Your task to perform on an android device: see sites visited before in the chrome app Image 0: 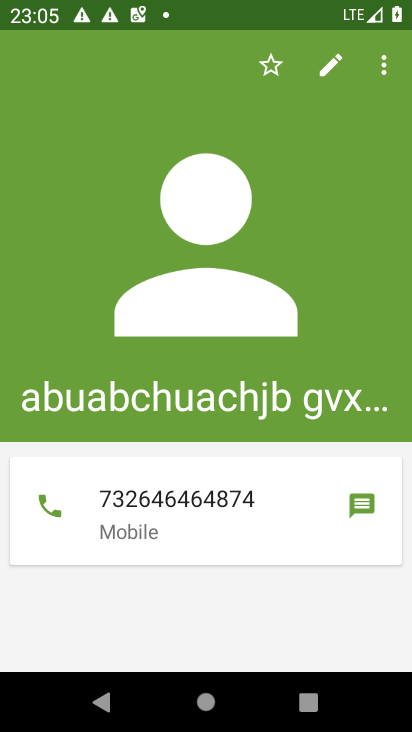
Step 0: press back button
Your task to perform on an android device: see sites visited before in the chrome app Image 1: 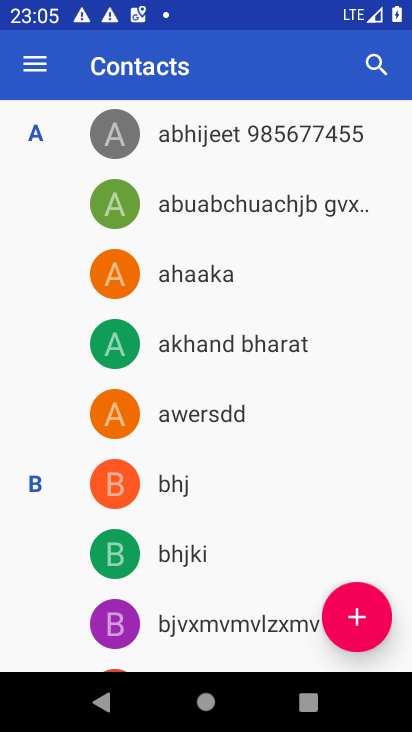
Step 1: press home button
Your task to perform on an android device: see sites visited before in the chrome app Image 2: 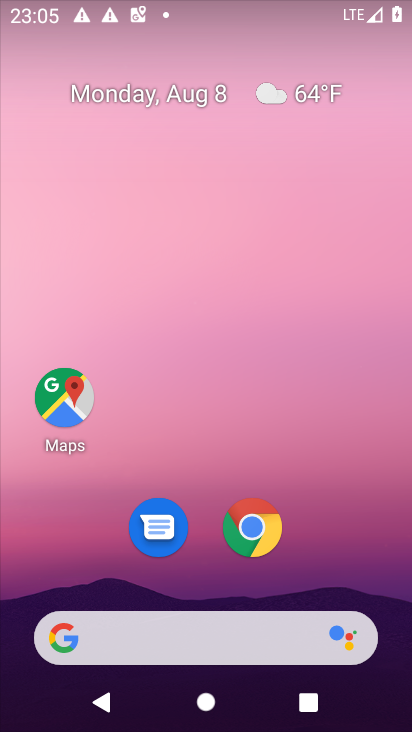
Step 2: click (221, 518)
Your task to perform on an android device: see sites visited before in the chrome app Image 3: 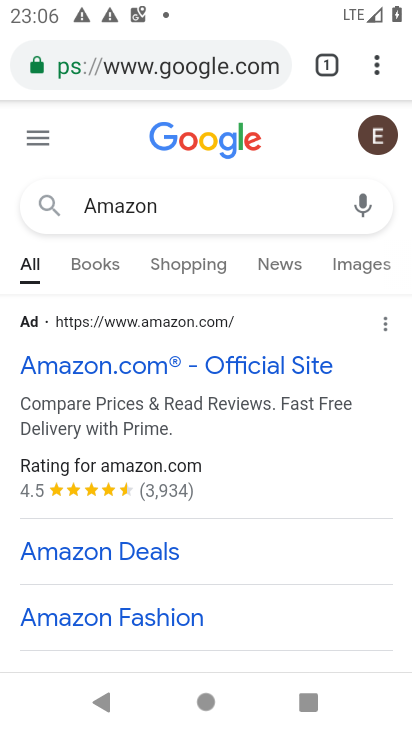
Step 3: click (375, 69)
Your task to perform on an android device: see sites visited before in the chrome app Image 4: 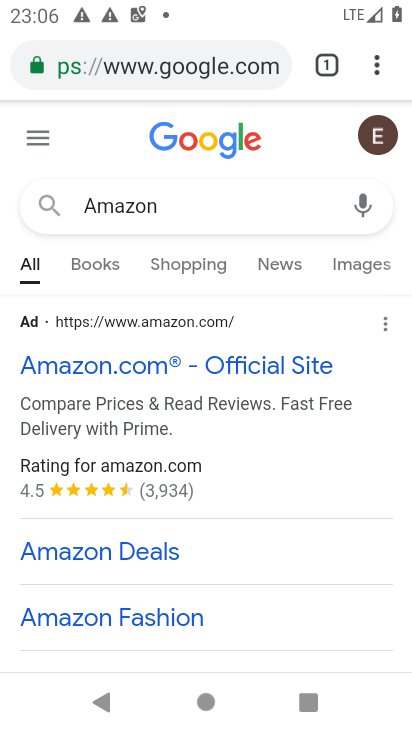
Step 4: click (376, 64)
Your task to perform on an android device: see sites visited before in the chrome app Image 5: 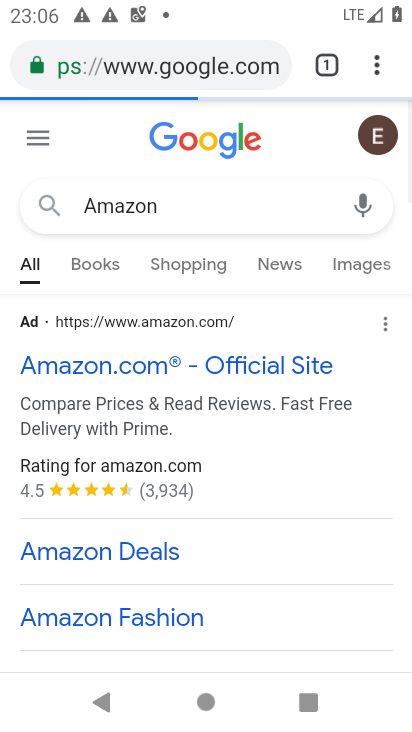
Step 5: click (376, 64)
Your task to perform on an android device: see sites visited before in the chrome app Image 6: 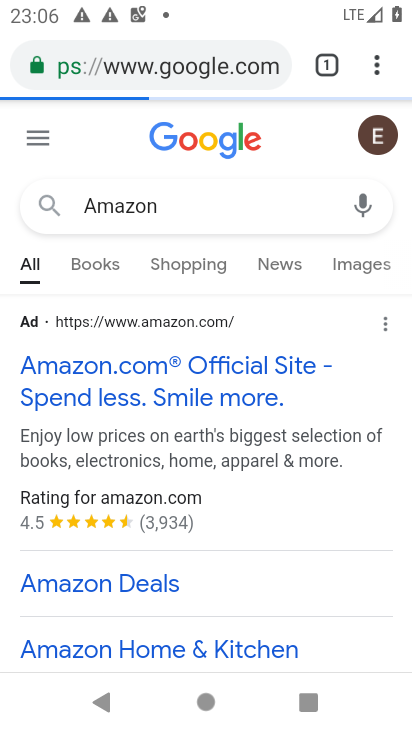
Step 6: click (376, 64)
Your task to perform on an android device: see sites visited before in the chrome app Image 7: 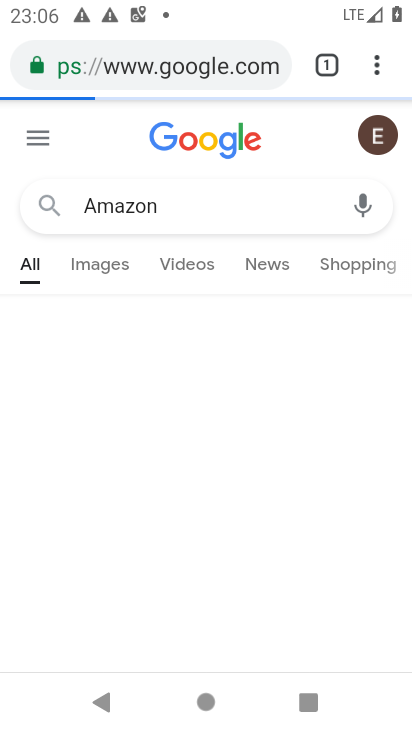
Step 7: click (376, 64)
Your task to perform on an android device: see sites visited before in the chrome app Image 8: 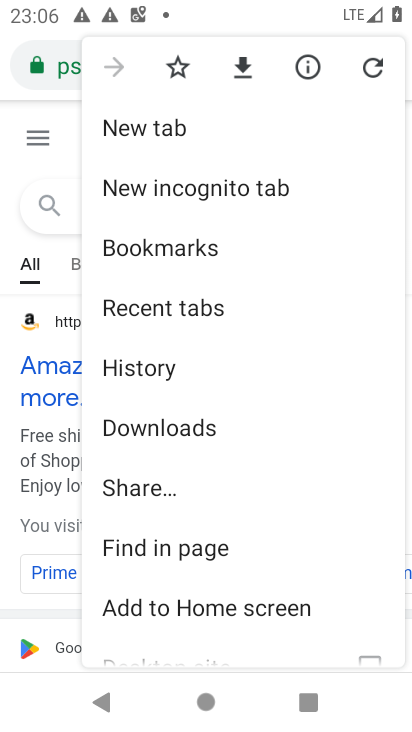
Step 8: drag from (332, 628) to (319, 237)
Your task to perform on an android device: see sites visited before in the chrome app Image 9: 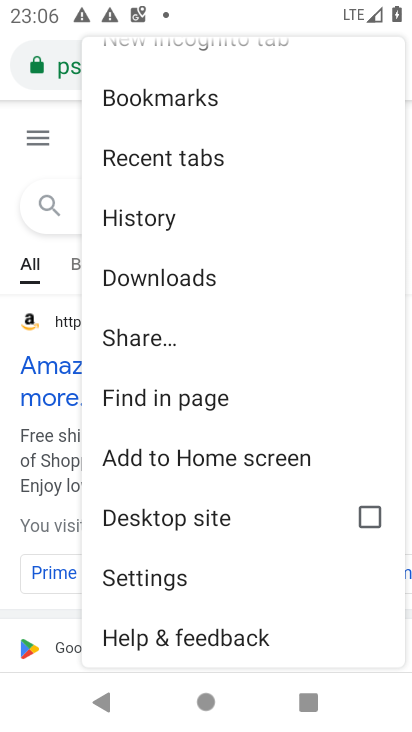
Step 9: click (127, 578)
Your task to perform on an android device: see sites visited before in the chrome app Image 10: 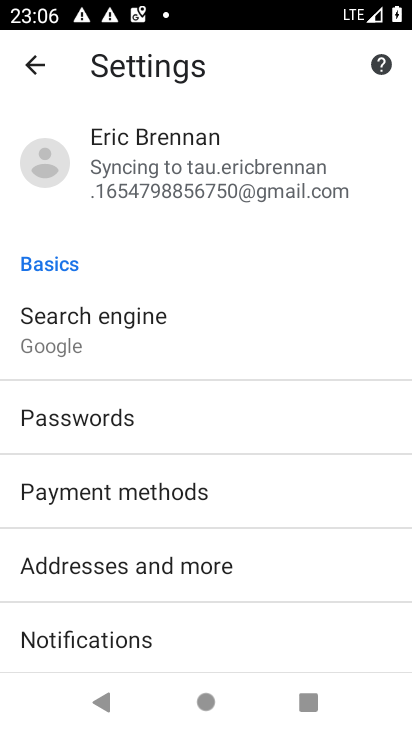
Step 10: drag from (260, 638) to (265, 239)
Your task to perform on an android device: see sites visited before in the chrome app Image 11: 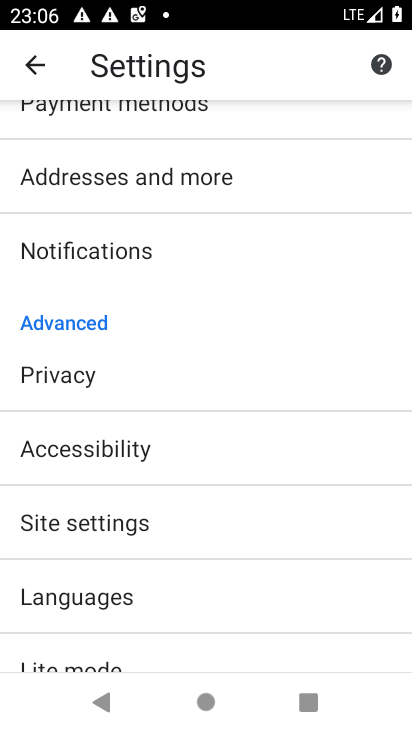
Step 11: click (95, 522)
Your task to perform on an android device: see sites visited before in the chrome app Image 12: 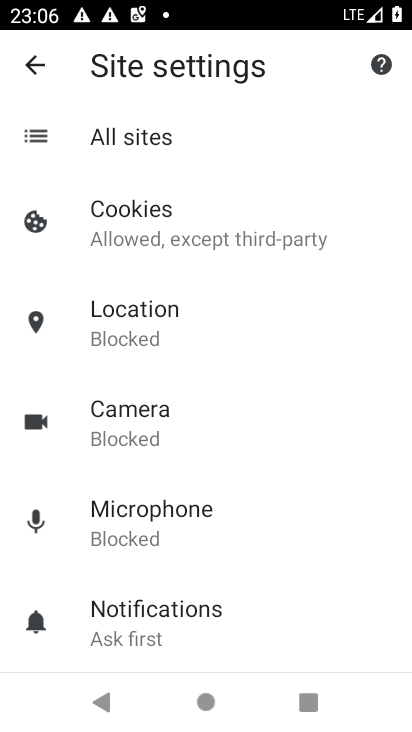
Step 12: drag from (300, 621) to (331, 276)
Your task to perform on an android device: see sites visited before in the chrome app Image 13: 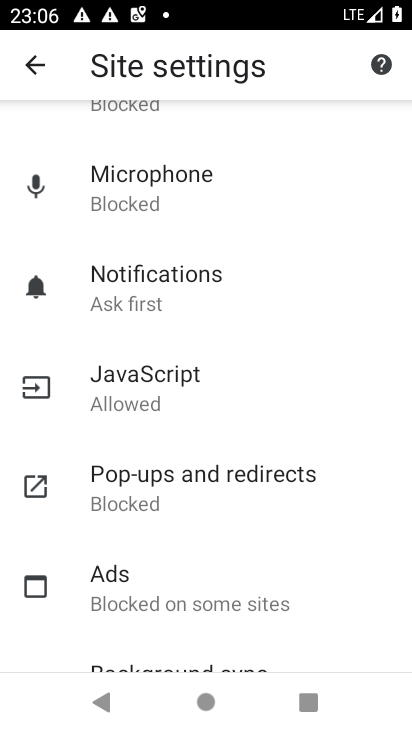
Step 13: drag from (320, 651) to (320, 307)
Your task to perform on an android device: see sites visited before in the chrome app Image 14: 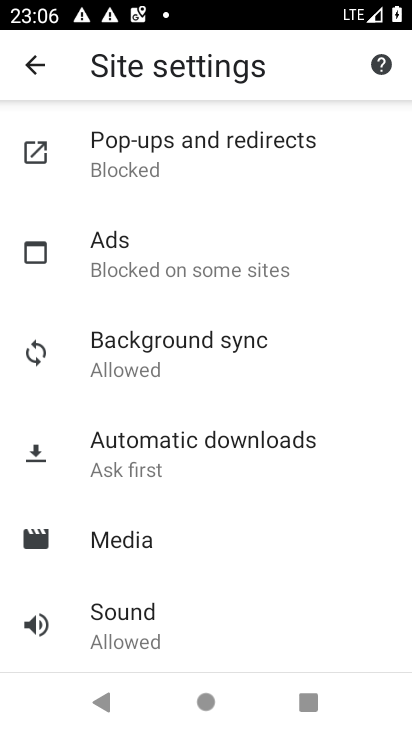
Step 14: drag from (328, 613) to (357, 290)
Your task to perform on an android device: see sites visited before in the chrome app Image 15: 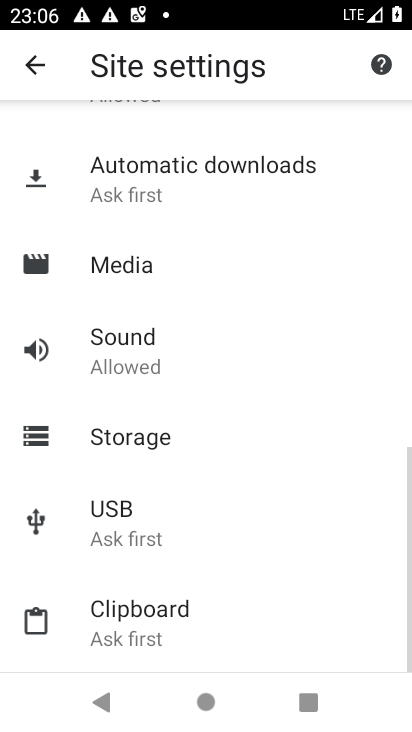
Step 15: drag from (304, 224) to (331, 630)
Your task to perform on an android device: see sites visited before in the chrome app Image 16: 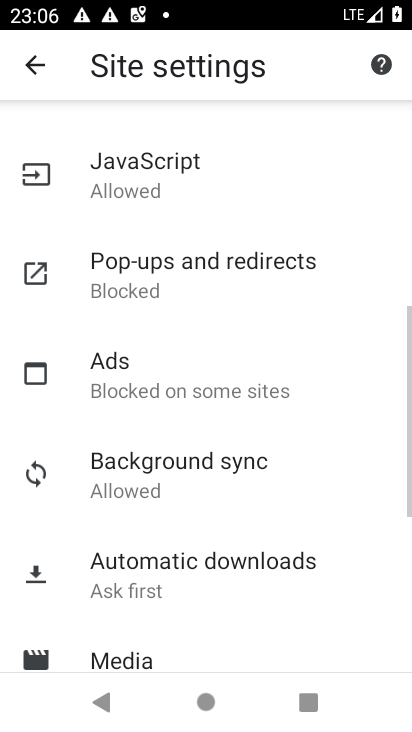
Step 16: drag from (315, 252) to (327, 561)
Your task to perform on an android device: see sites visited before in the chrome app Image 17: 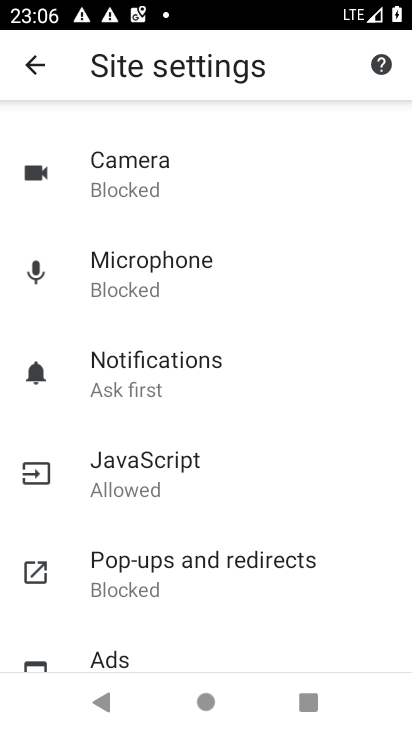
Step 17: click (39, 70)
Your task to perform on an android device: see sites visited before in the chrome app Image 18: 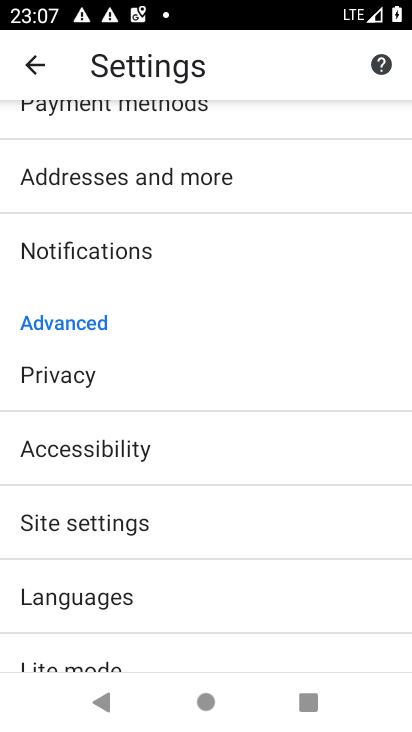
Step 18: drag from (256, 195) to (273, 605)
Your task to perform on an android device: see sites visited before in the chrome app Image 19: 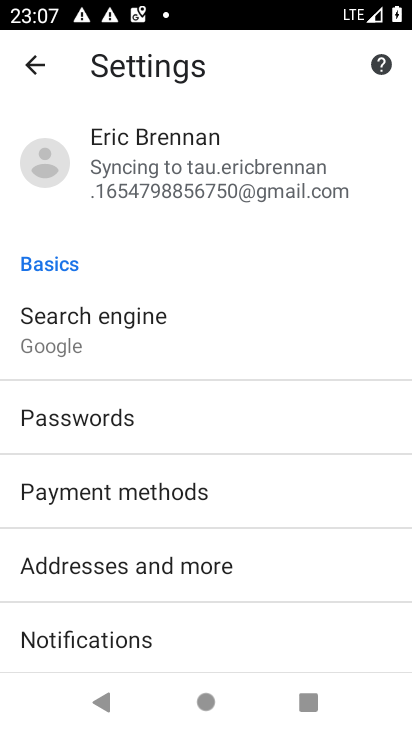
Step 19: click (33, 63)
Your task to perform on an android device: see sites visited before in the chrome app Image 20: 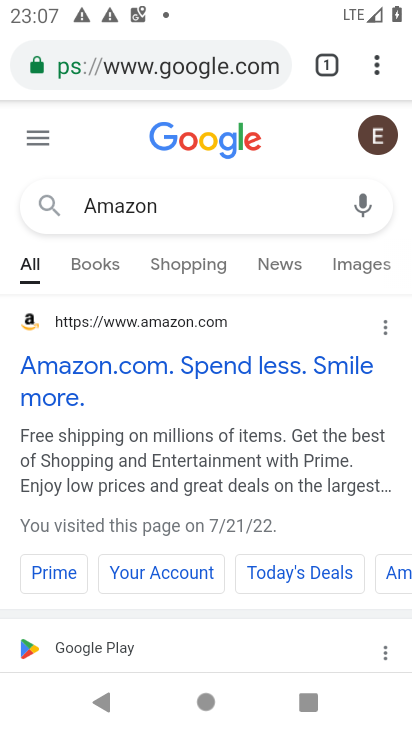
Step 20: click (378, 62)
Your task to perform on an android device: see sites visited before in the chrome app Image 21: 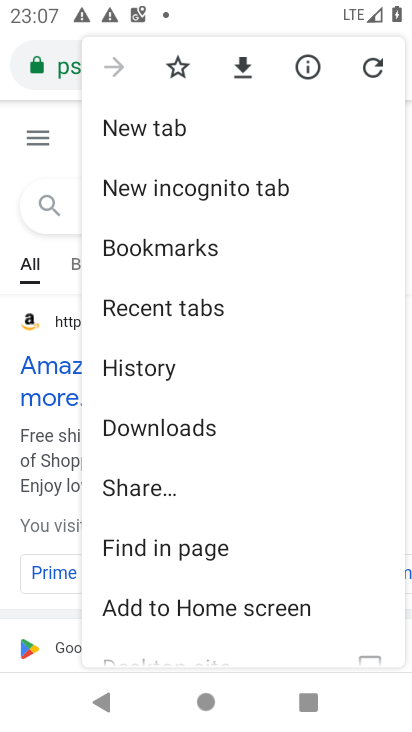
Step 21: click (158, 299)
Your task to perform on an android device: see sites visited before in the chrome app Image 22: 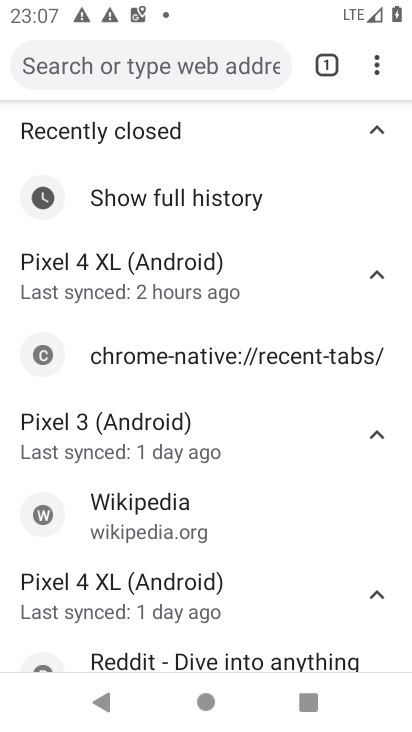
Step 22: task complete